Your task to perform on an android device: find which apps use the phone's location Image 0: 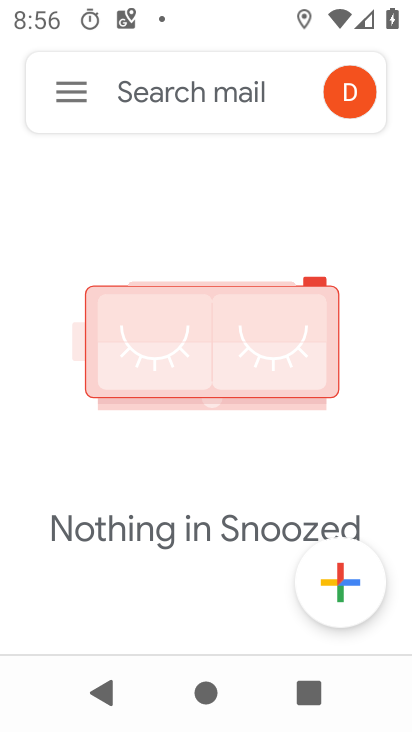
Step 0: drag from (199, 523) to (199, 87)
Your task to perform on an android device: find which apps use the phone's location Image 1: 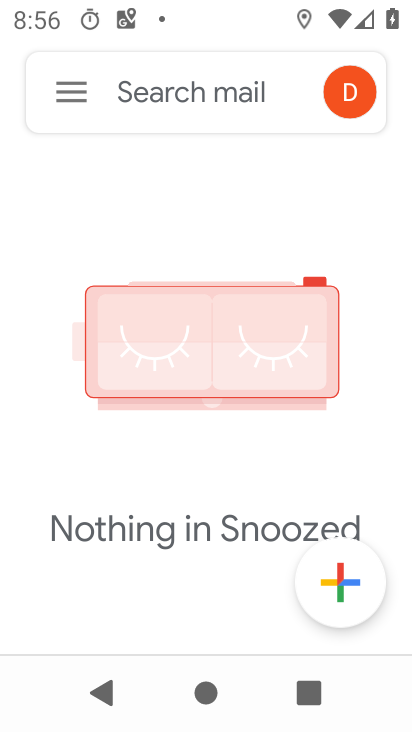
Step 1: press home button
Your task to perform on an android device: find which apps use the phone's location Image 2: 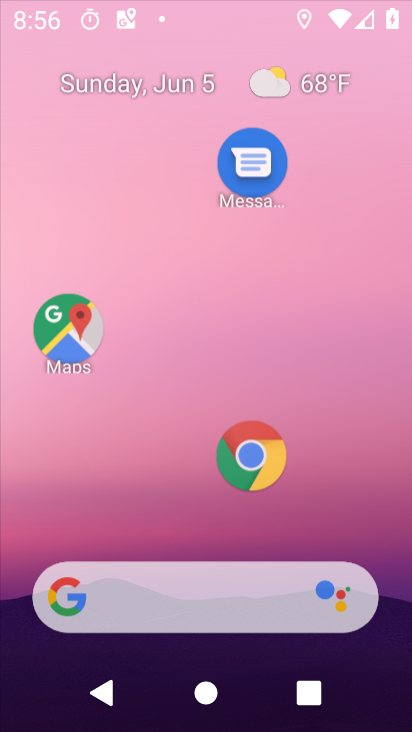
Step 2: drag from (182, 576) to (197, 139)
Your task to perform on an android device: find which apps use the phone's location Image 3: 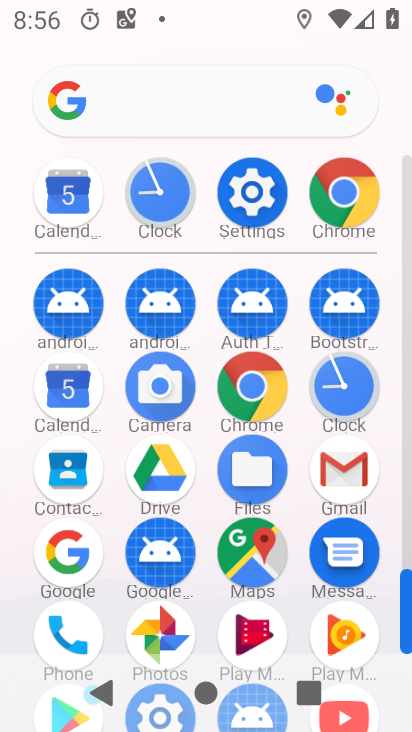
Step 3: click (250, 188)
Your task to perform on an android device: find which apps use the phone's location Image 4: 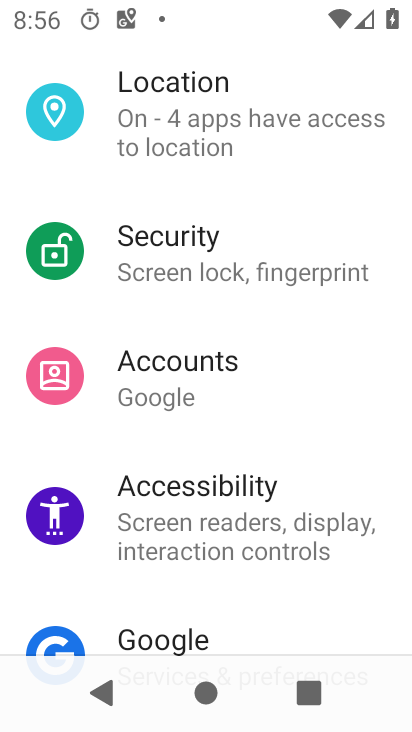
Step 4: click (216, 103)
Your task to perform on an android device: find which apps use the phone's location Image 5: 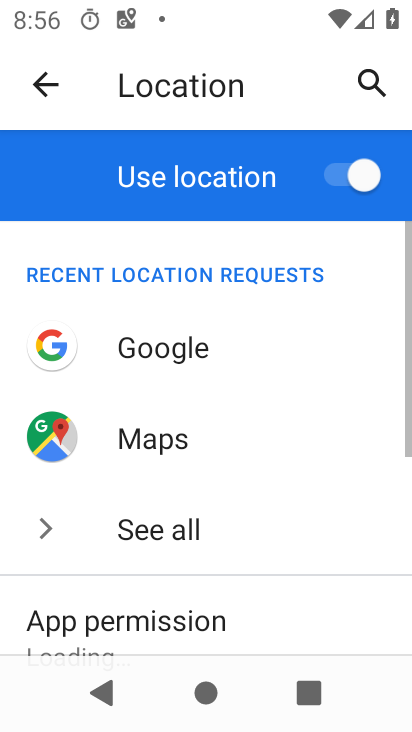
Step 5: drag from (216, 554) to (273, 118)
Your task to perform on an android device: find which apps use the phone's location Image 6: 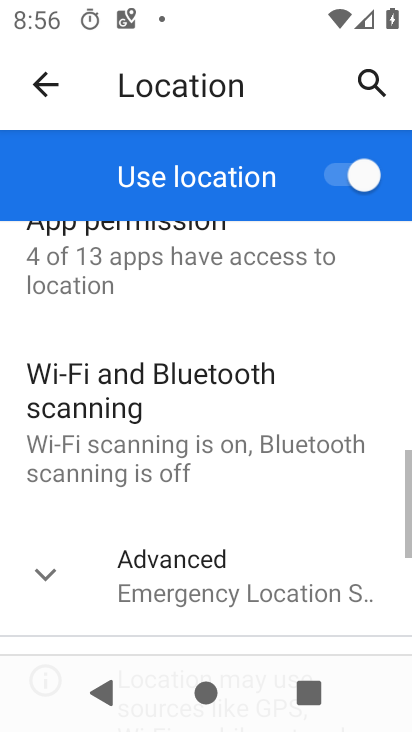
Step 6: click (165, 239)
Your task to perform on an android device: find which apps use the phone's location Image 7: 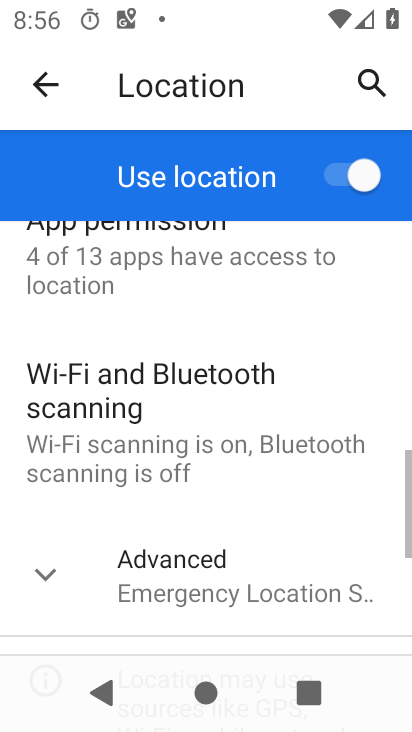
Step 7: click (165, 239)
Your task to perform on an android device: find which apps use the phone's location Image 8: 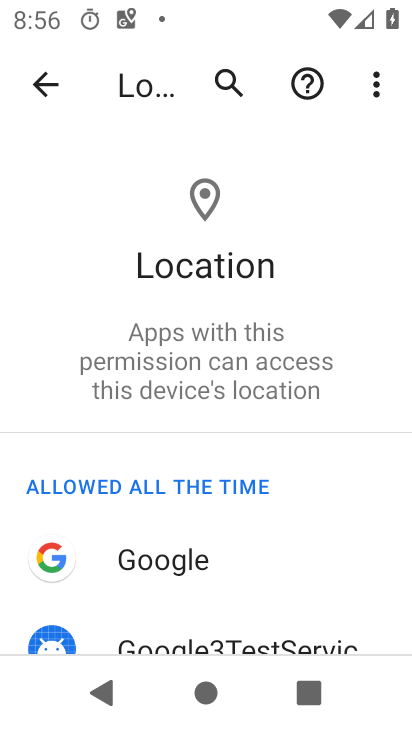
Step 8: task complete